Your task to perform on an android device: uninstall "Spotify" Image 0: 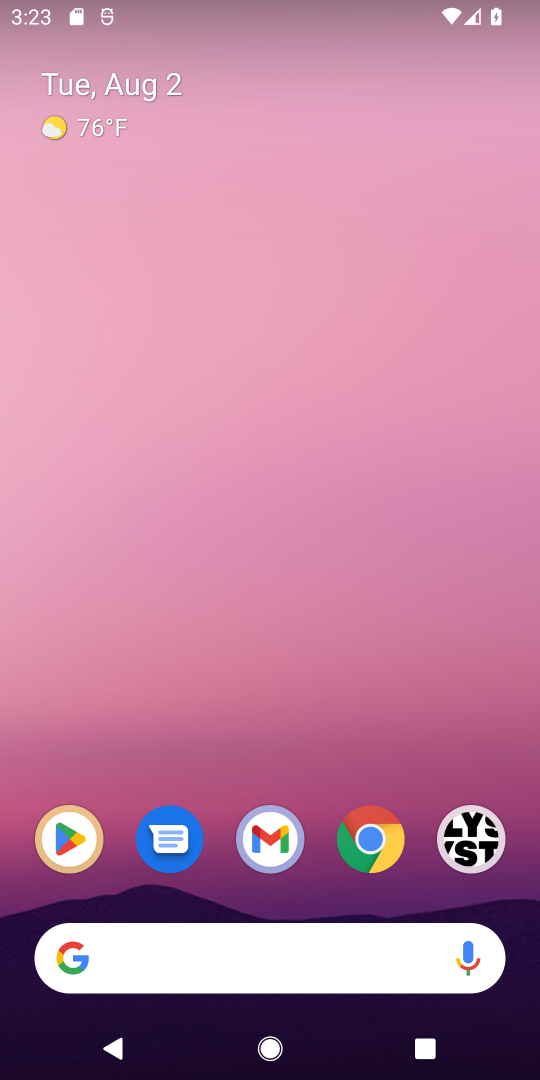
Step 0: drag from (312, 865) to (306, 217)
Your task to perform on an android device: uninstall "Spotify" Image 1: 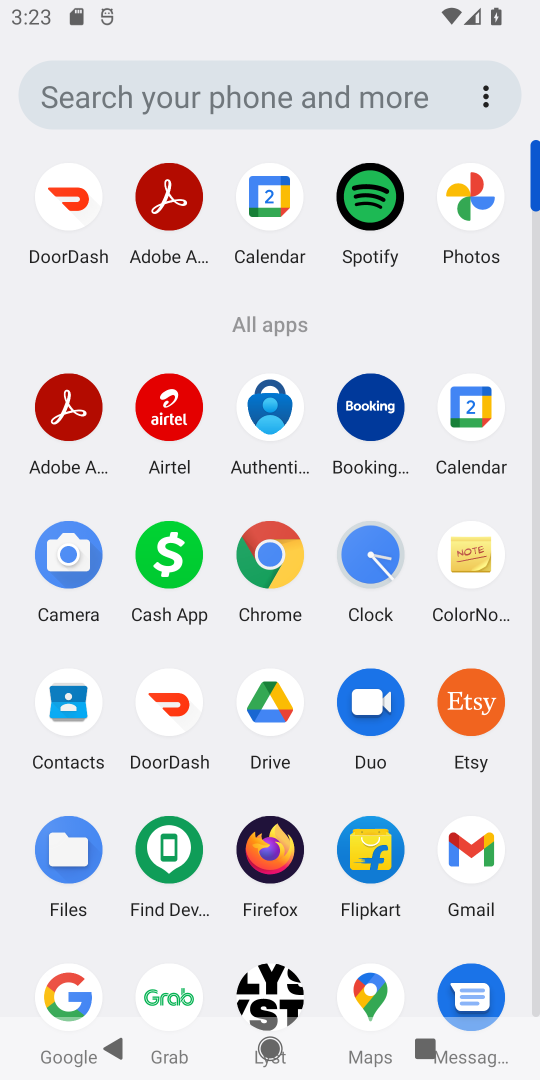
Step 1: click (347, 217)
Your task to perform on an android device: uninstall "Spotify" Image 2: 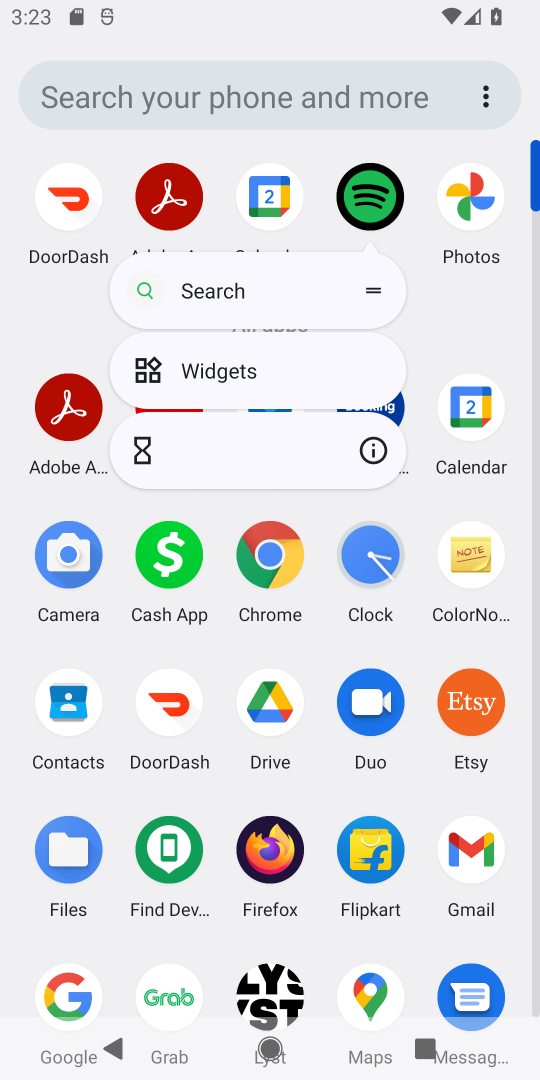
Step 2: click (365, 431)
Your task to perform on an android device: uninstall "Spotify" Image 3: 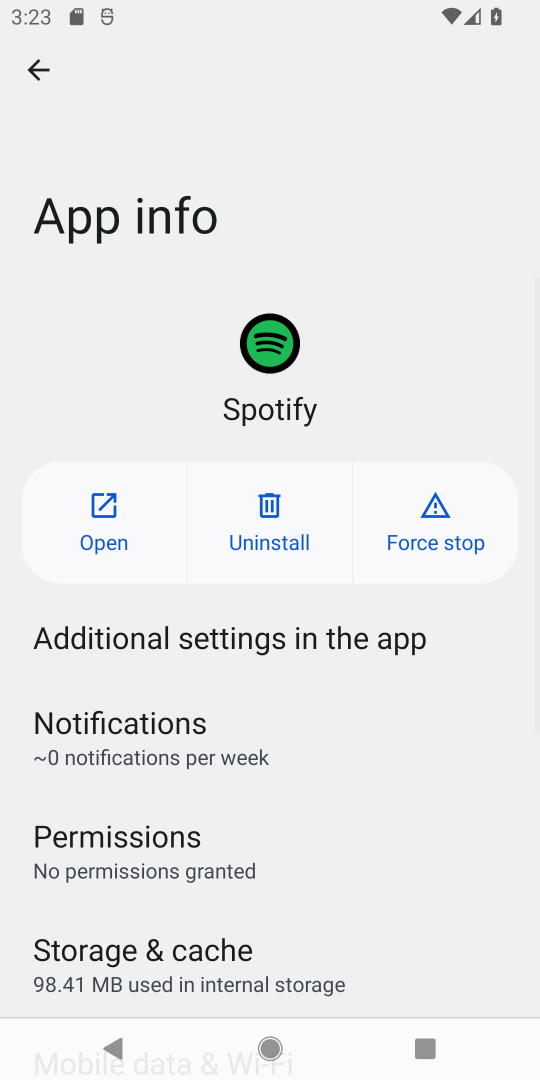
Step 3: click (273, 519)
Your task to perform on an android device: uninstall "Spotify" Image 4: 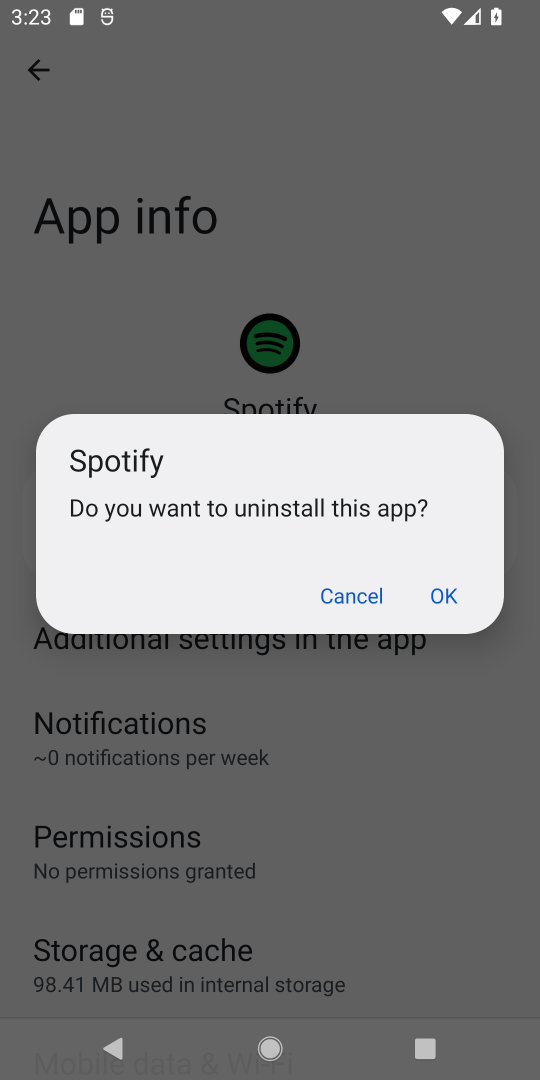
Step 4: task complete